Your task to perform on an android device: Open wifi settings Image 0: 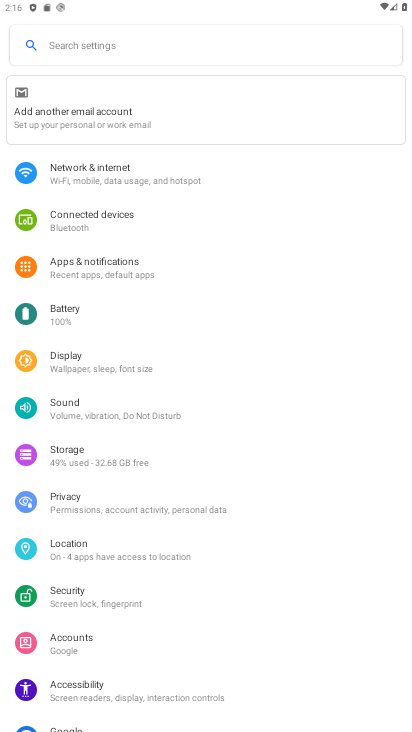
Step 0: click (254, 177)
Your task to perform on an android device: Open wifi settings Image 1: 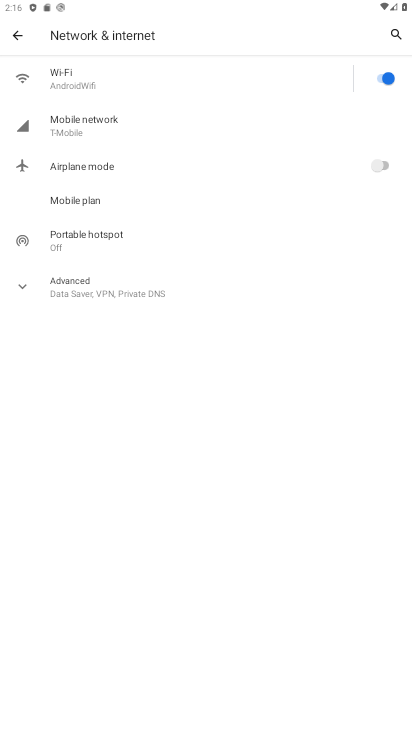
Step 1: click (137, 81)
Your task to perform on an android device: Open wifi settings Image 2: 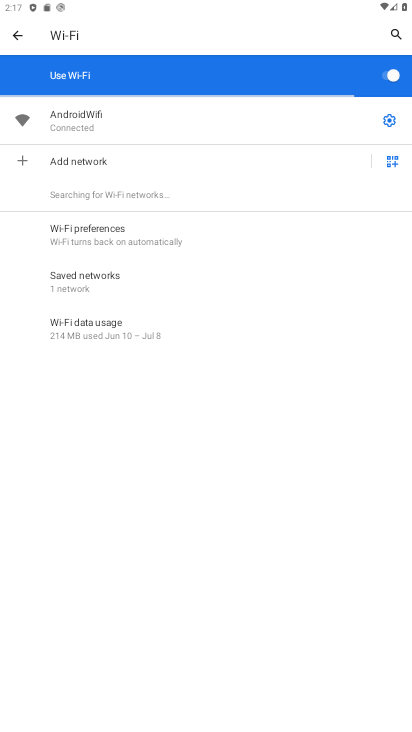
Step 2: task complete